Your task to perform on an android device: find snoozed emails in the gmail app Image 0: 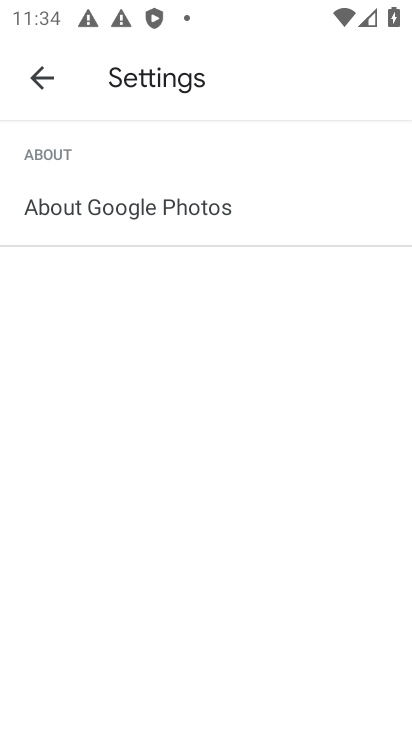
Step 0: press home button
Your task to perform on an android device: find snoozed emails in the gmail app Image 1: 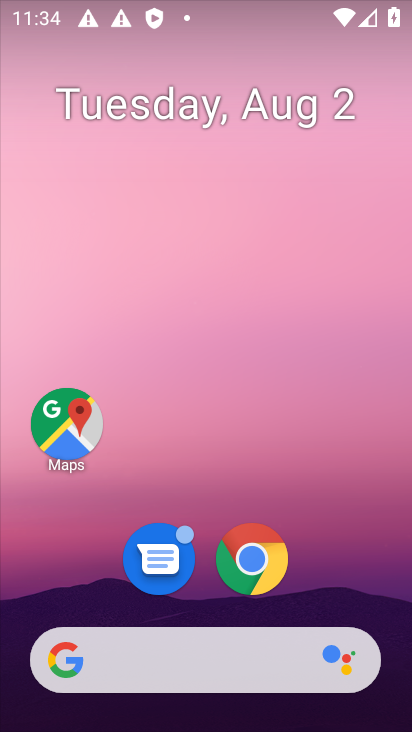
Step 1: drag from (201, 512) to (201, 94)
Your task to perform on an android device: find snoozed emails in the gmail app Image 2: 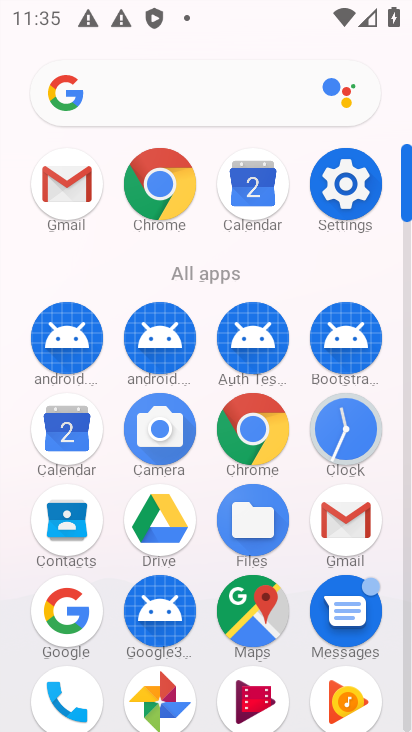
Step 2: click (337, 533)
Your task to perform on an android device: find snoozed emails in the gmail app Image 3: 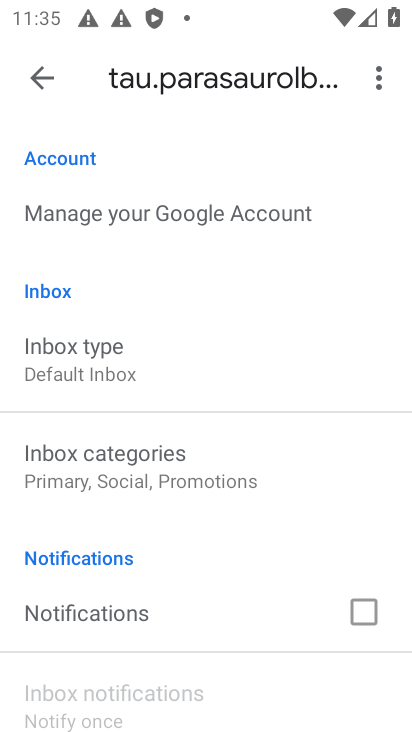
Step 3: click (38, 75)
Your task to perform on an android device: find snoozed emails in the gmail app Image 4: 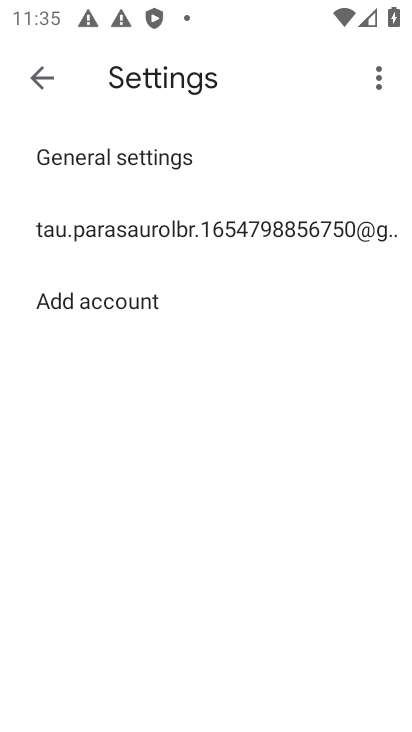
Step 4: click (37, 79)
Your task to perform on an android device: find snoozed emails in the gmail app Image 5: 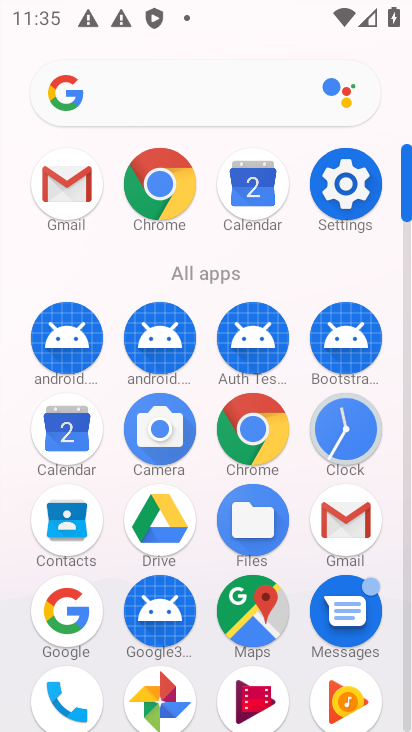
Step 5: click (69, 183)
Your task to perform on an android device: find snoozed emails in the gmail app Image 6: 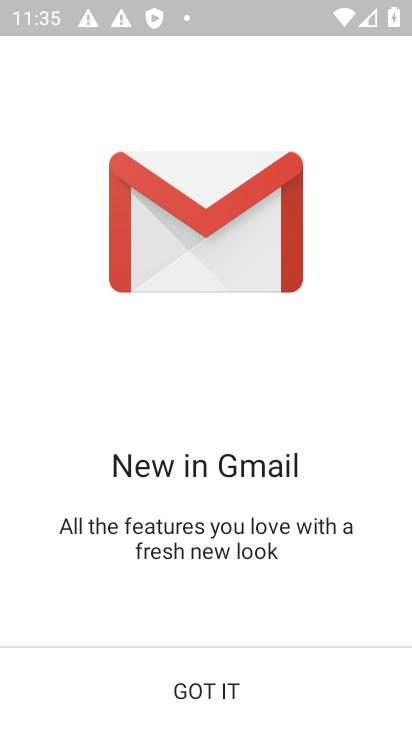
Step 6: click (187, 689)
Your task to perform on an android device: find snoozed emails in the gmail app Image 7: 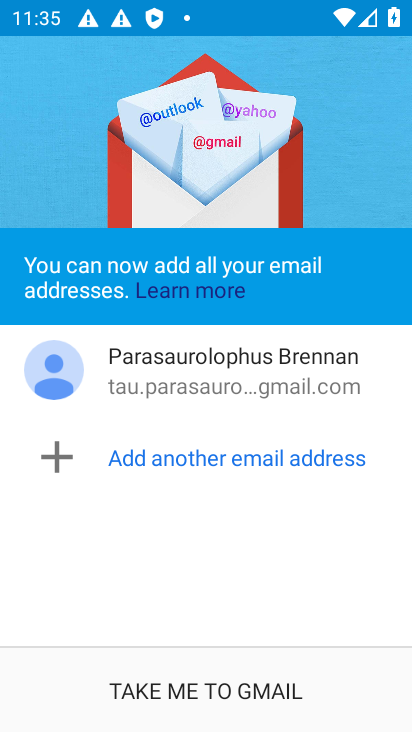
Step 7: click (199, 683)
Your task to perform on an android device: find snoozed emails in the gmail app Image 8: 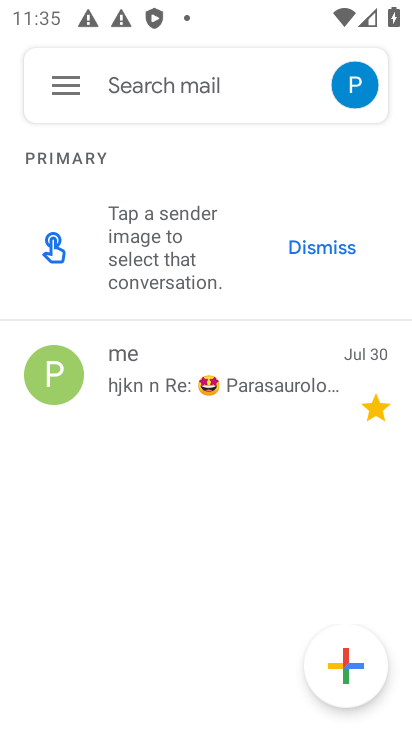
Step 8: click (171, 375)
Your task to perform on an android device: find snoozed emails in the gmail app Image 9: 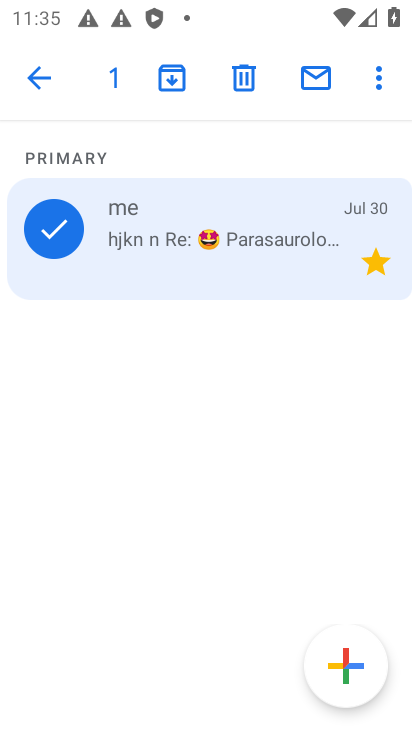
Step 9: click (379, 82)
Your task to perform on an android device: find snoozed emails in the gmail app Image 10: 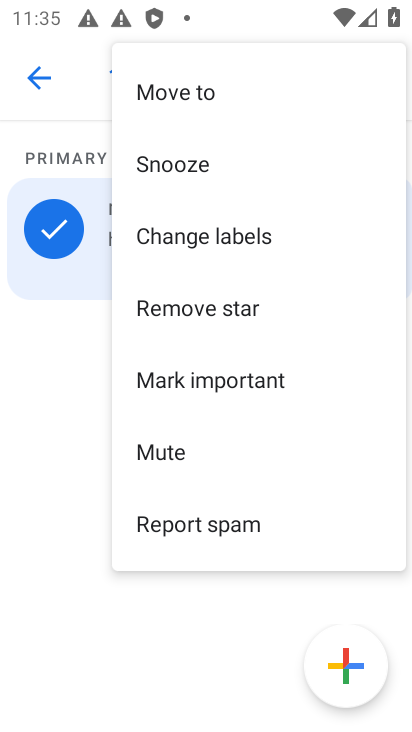
Step 10: click (177, 165)
Your task to perform on an android device: find snoozed emails in the gmail app Image 11: 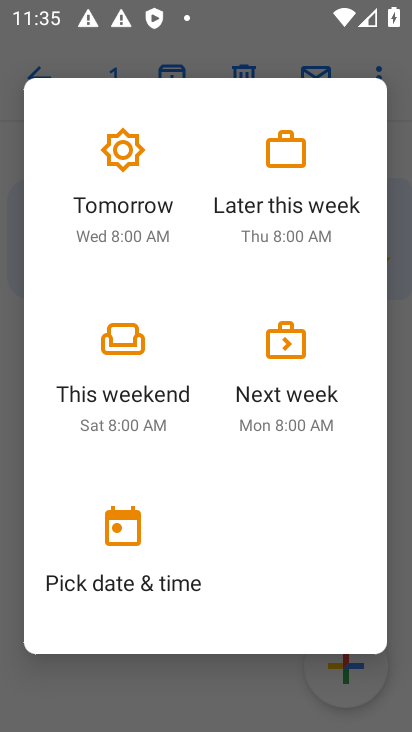
Step 11: click (109, 208)
Your task to perform on an android device: find snoozed emails in the gmail app Image 12: 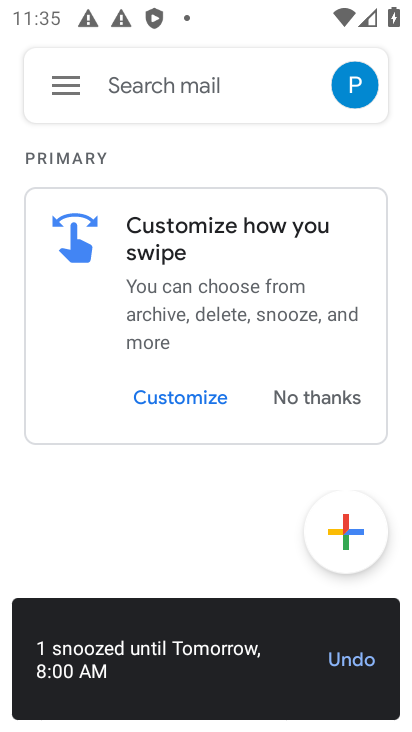
Step 12: task complete